Your task to perform on an android device: What is the recent news? Image 0: 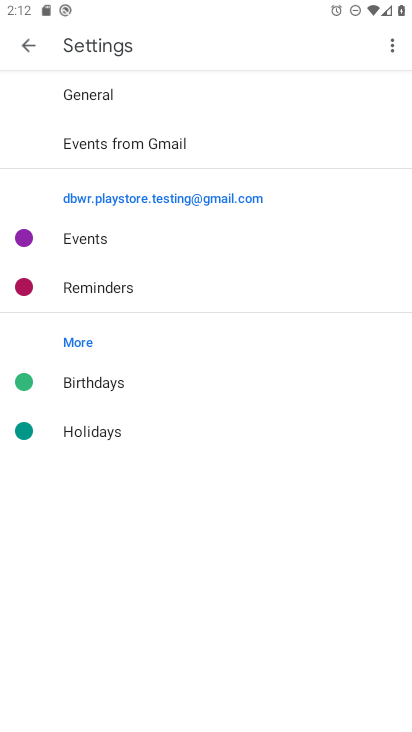
Step 0: press home button
Your task to perform on an android device: What is the recent news? Image 1: 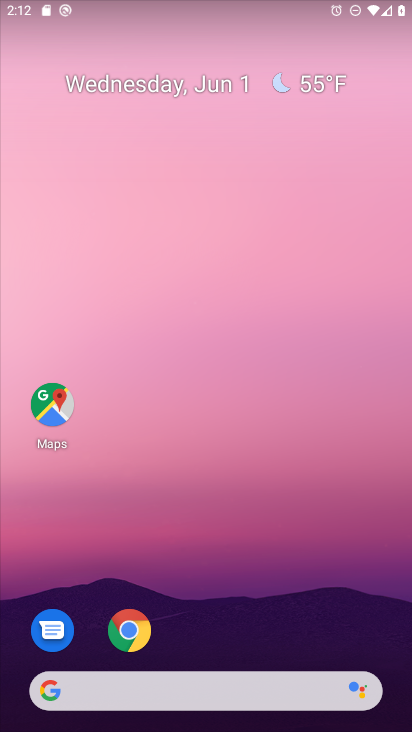
Step 1: drag from (255, 668) to (301, 16)
Your task to perform on an android device: What is the recent news? Image 2: 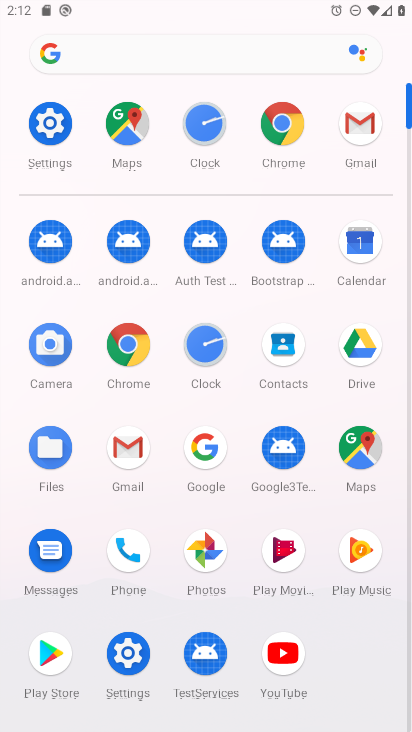
Step 2: click (129, 349)
Your task to perform on an android device: What is the recent news? Image 3: 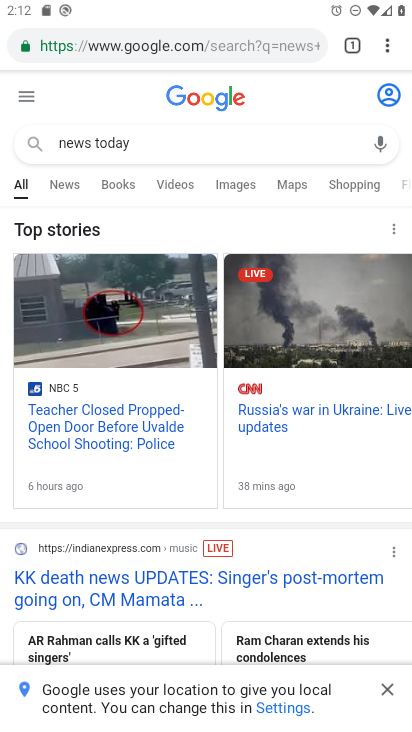
Step 3: click (206, 42)
Your task to perform on an android device: What is the recent news? Image 4: 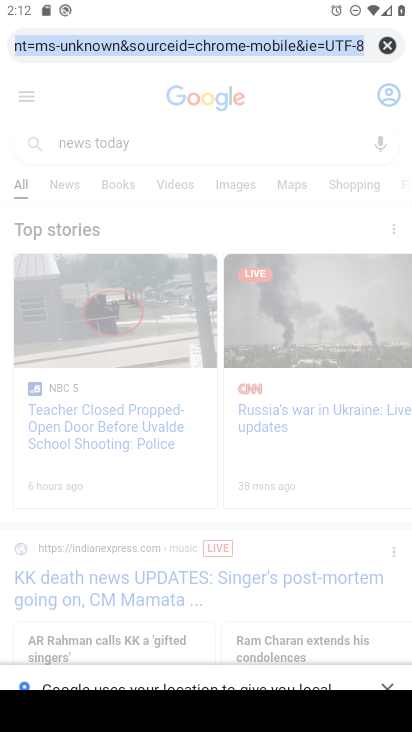
Step 4: type "recent news"
Your task to perform on an android device: What is the recent news? Image 5: 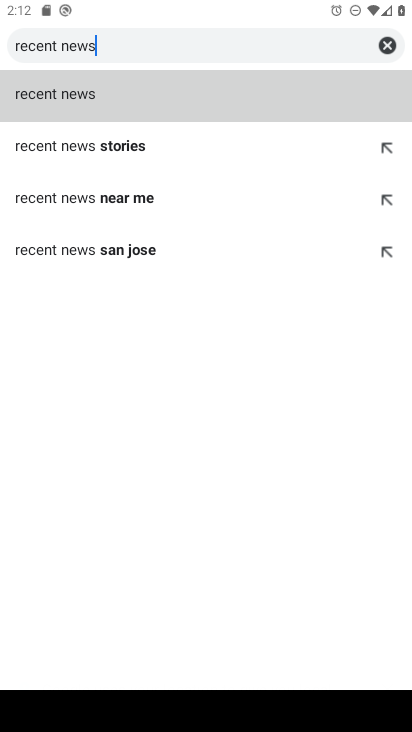
Step 5: click (30, 72)
Your task to perform on an android device: What is the recent news? Image 6: 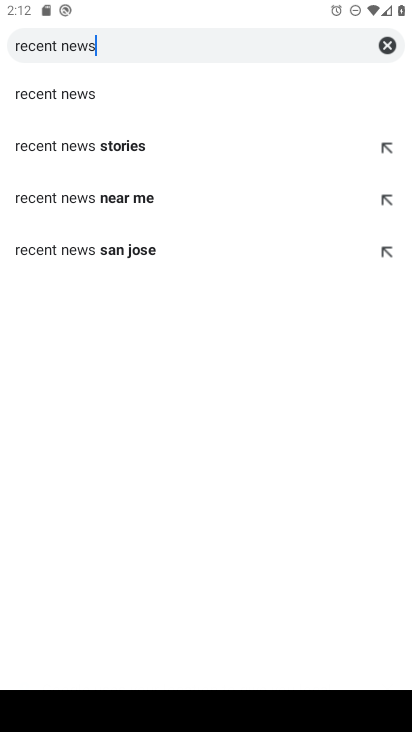
Step 6: click (84, 86)
Your task to perform on an android device: What is the recent news? Image 7: 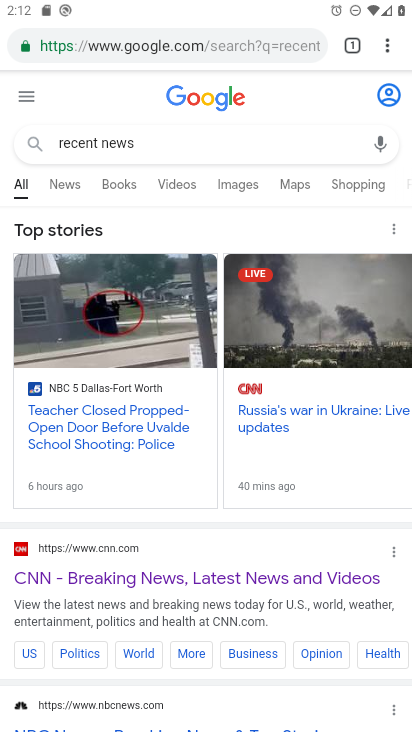
Step 7: task complete